Your task to perform on an android device: Search for vegetarian restaurants on Maps Image 0: 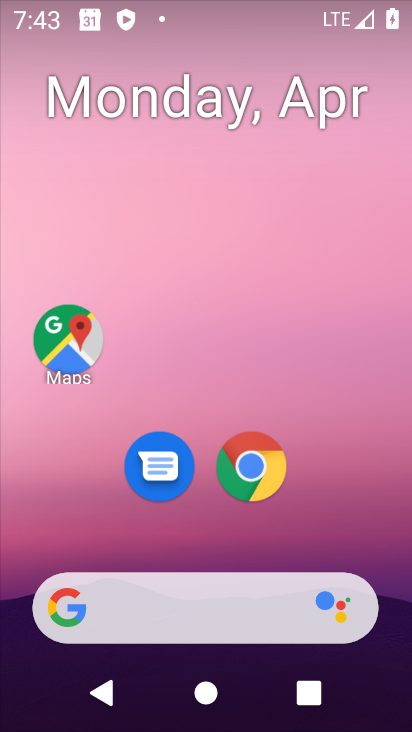
Step 0: drag from (217, 531) to (296, 150)
Your task to perform on an android device: Search for vegetarian restaurants on Maps Image 1: 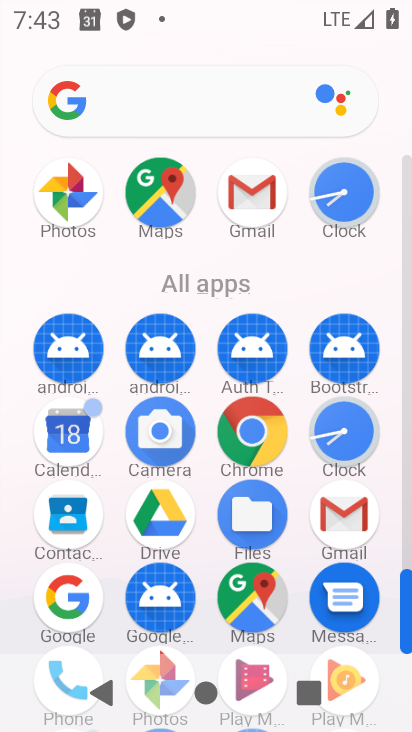
Step 1: click (280, 587)
Your task to perform on an android device: Search for vegetarian restaurants on Maps Image 2: 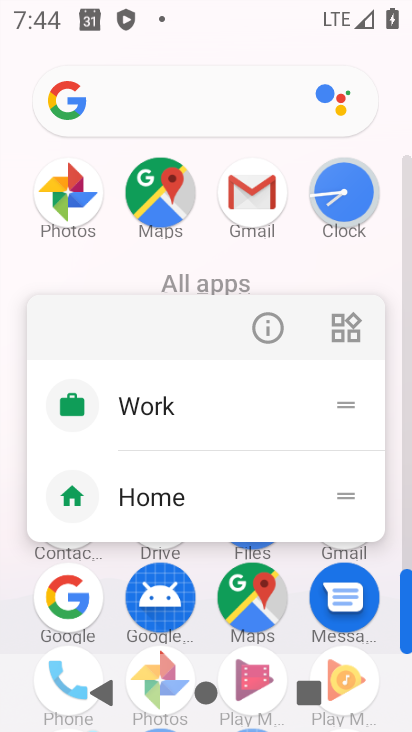
Step 2: click (262, 323)
Your task to perform on an android device: Search for vegetarian restaurants on Maps Image 3: 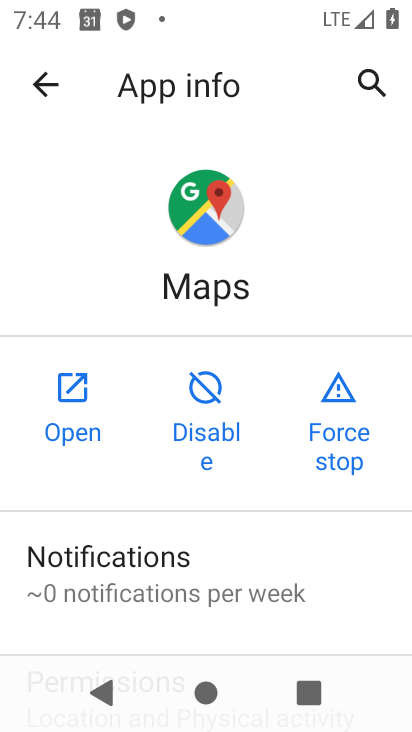
Step 3: click (59, 418)
Your task to perform on an android device: Search for vegetarian restaurants on Maps Image 4: 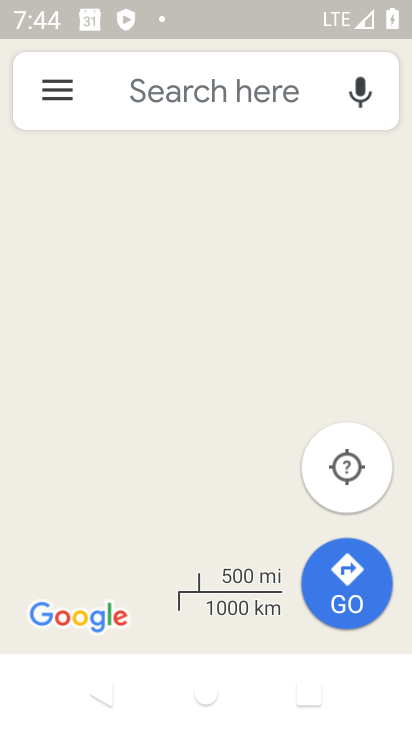
Step 4: click (152, 88)
Your task to perform on an android device: Search for vegetarian restaurants on Maps Image 5: 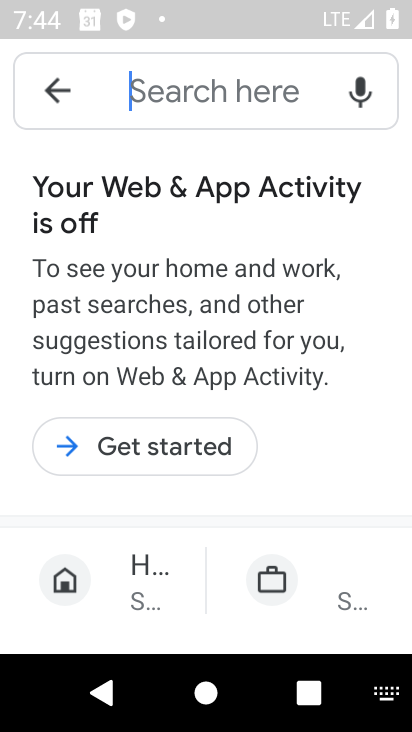
Step 5: drag from (186, 461) to (238, 248)
Your task to perform on an android device: Search for vegetarian restaurants on Maps Image 6: 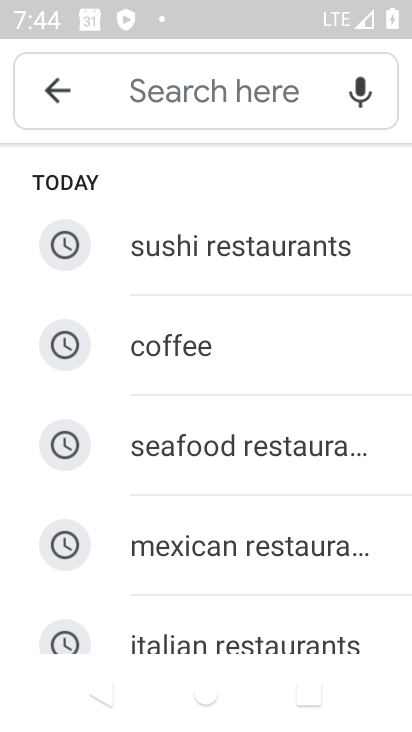
Step 6: drag from (250, 581) to (286, 179)
Your task to perform on an android device: Search for vegetarian restaurants on Maps Image 7: 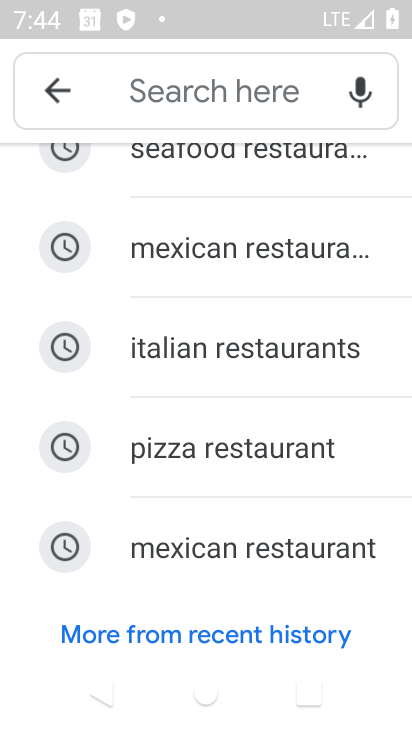
Step 7: click (193, 100)
Your task to perform on an android device: Search for vegetarian restaurants on Maps Image 8: 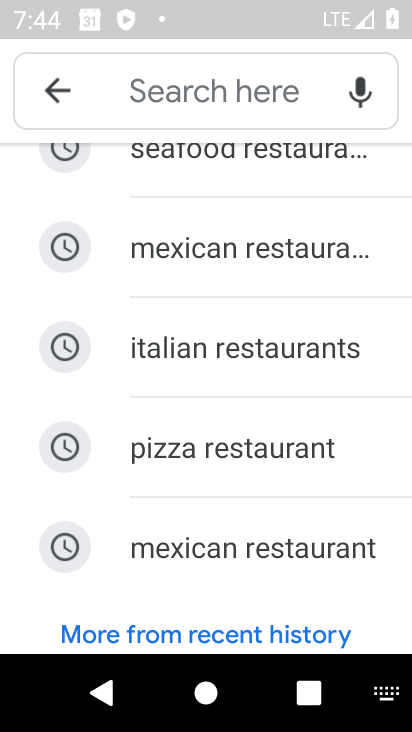
Step 8: type "vegetarian restaurants"
Your task to perform on an android device: Search for vegetarian restaurants on Maps Image 9: 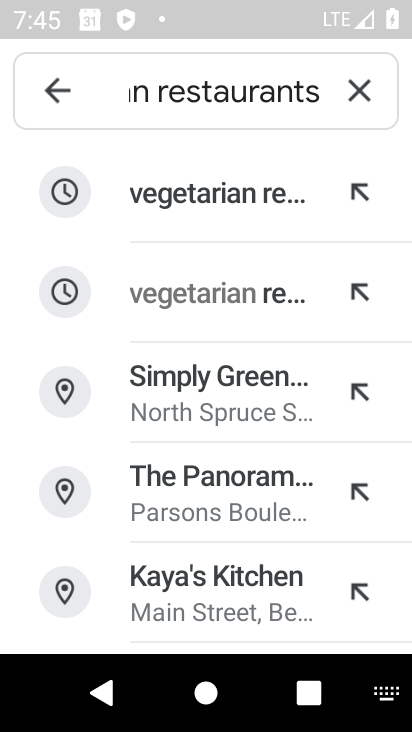
Step 9: click (204, 189)
Your task to perform on an android device: Search for vegetarian restaurants on Maps Image 10: 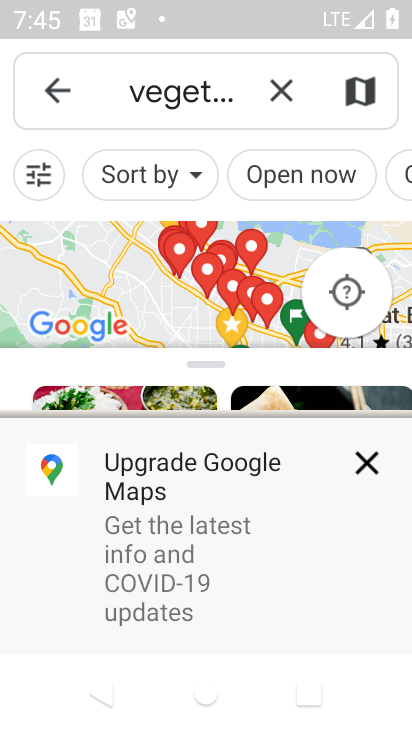
Step 10: task complete